Your task to perform on an android device: turn off improve location accuracy Image 0: 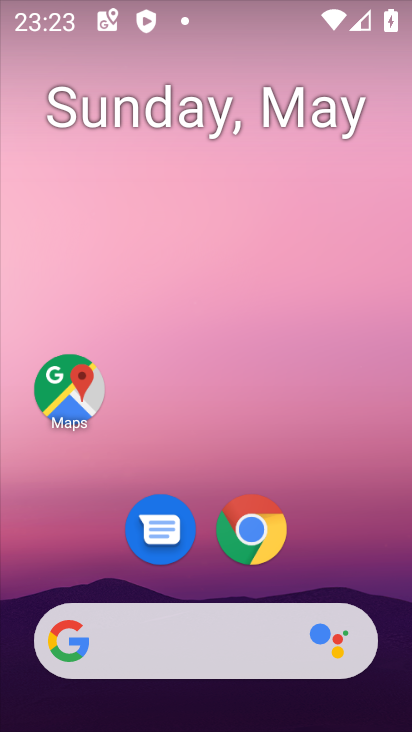
Step 0: drag from (376, 585) to (302, 133)
Your task to perform on an android device: turn off improve location accuracy Image 1: 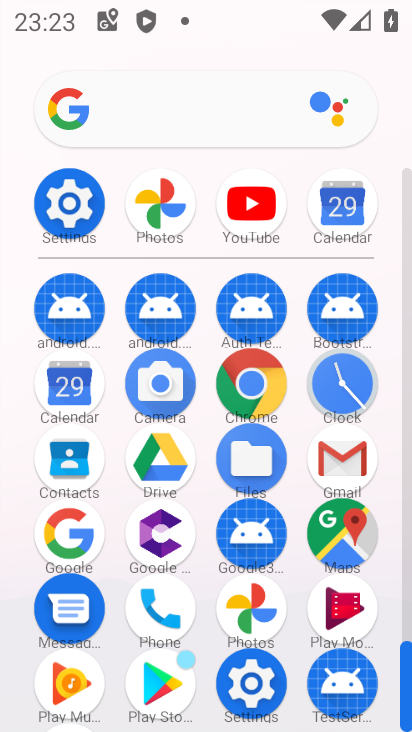
Step 1: click (85, 201)
Your task to perform on an android device: turn off improve location accuracy Image 2: 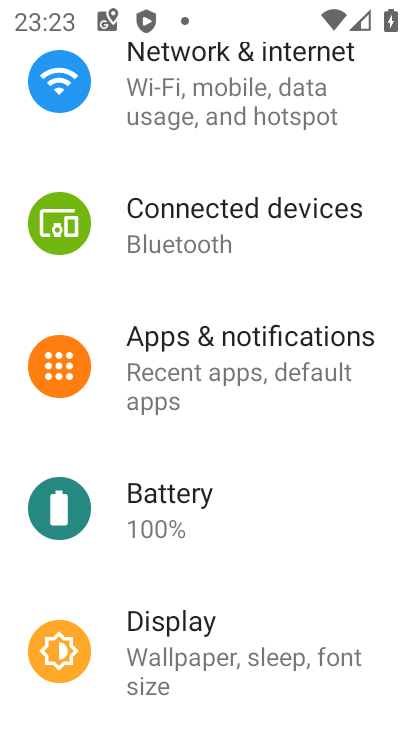
Step 2: drag from (284, 585) to (276, 148)
Your task to perform on an android device: turn off improve location accuracy Image 3: 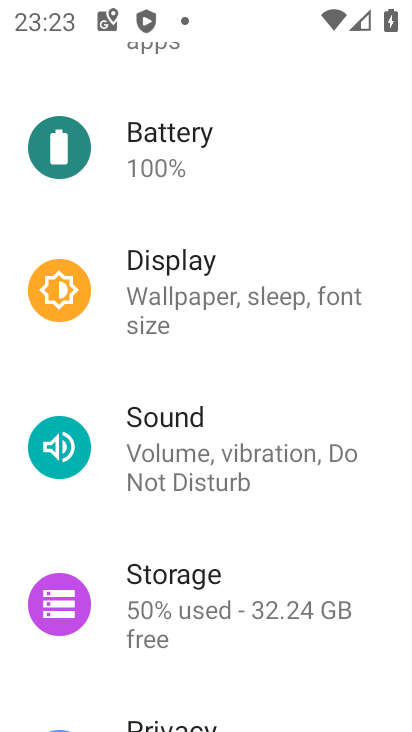
Step 3: drag from (241, 551) to (243, 165)
Your task to perform on an android device: turn off improve location accuracy Image 4: 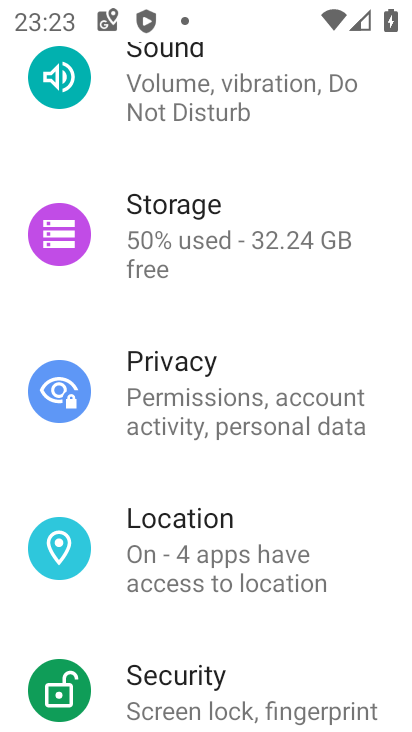
Step 4: click (205, 495)
Your task to perform on an android device: turn off improve location accuracy Image 5: 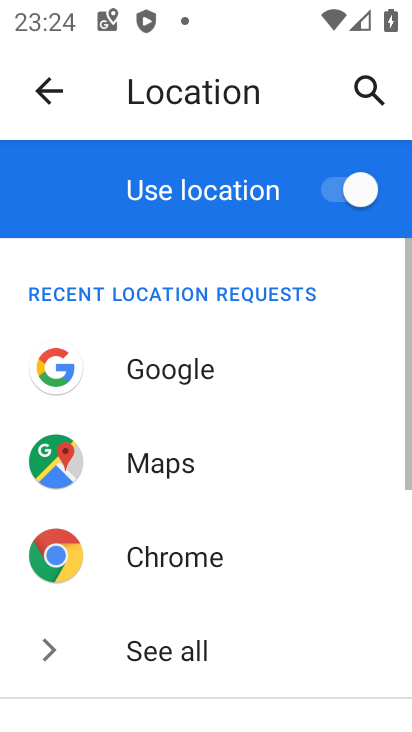
Step 5: task complete